Your task to perform on an android device: toggle show notifications on the lock screen Image 0: 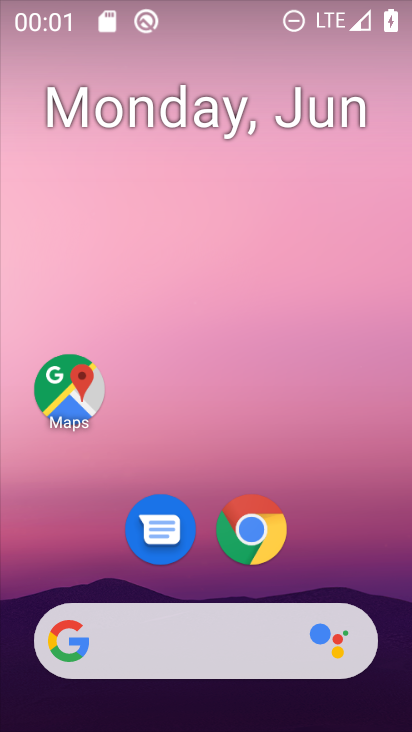
Step 0: drag from (392, 617) to (313, 165)
Your task to perform on an android device: toggle show notifications on the lock screen Image 1: 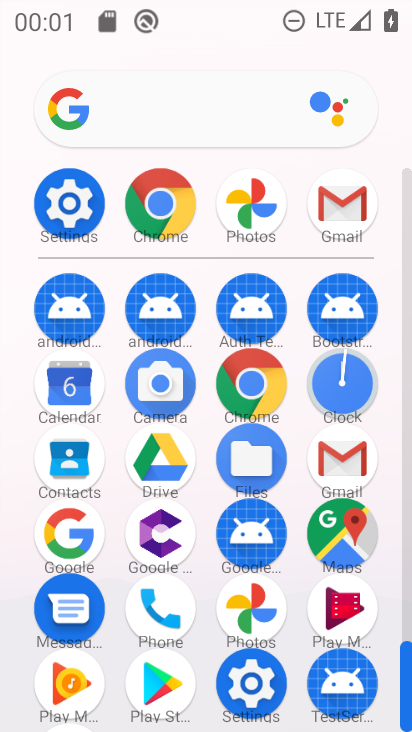
Step 1: click (253, 687)
Your task to perform on an android device: toggle show notifications on the lock screen Image 2: 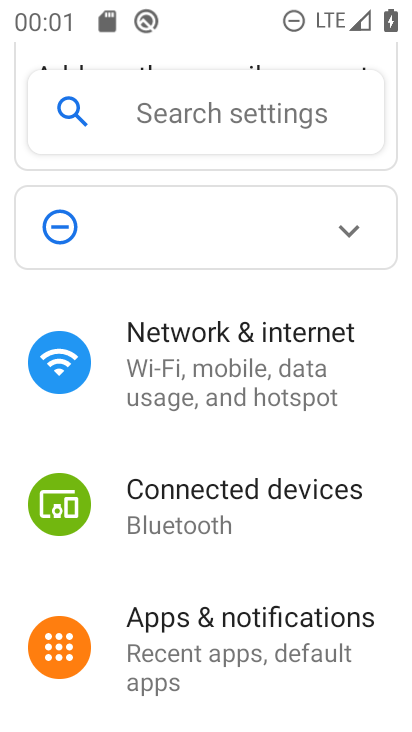
Step 2: click (208, 618)
Your task to perform on an android device: toggle show notifications on the lock screen Image 3: 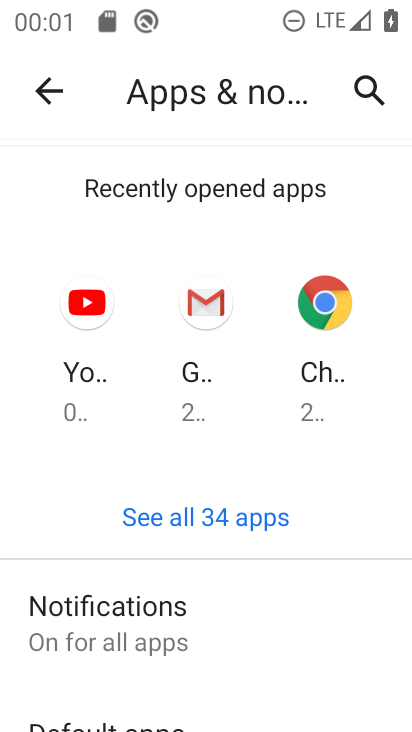
Step 3: drag from (326, 675) to (281, 269)
Your task to perform on an android device: toggle show notifications on the lock screen Image 4: 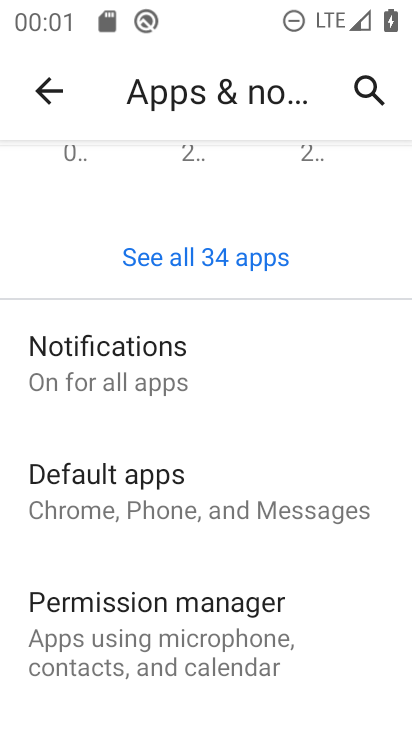
Step 4: click (111, 353)
Your task to perform on an android device: toggle show notifications on the lock screen Image 5: 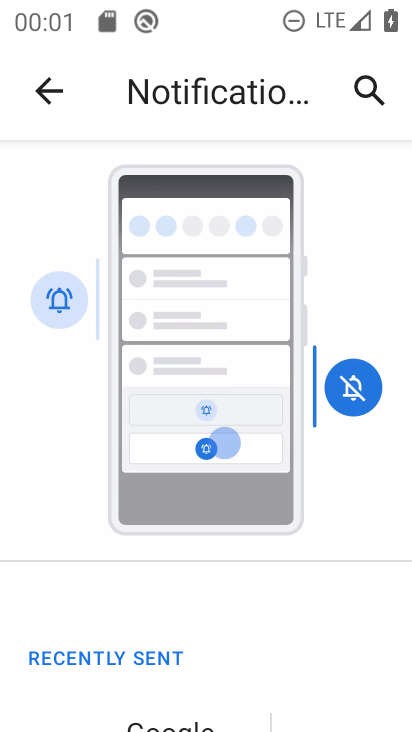
Step 5: drag from (267, 703) to (228, 136)
Your task to perform on an android device: toggle show notifications on the lock screen Image 6: 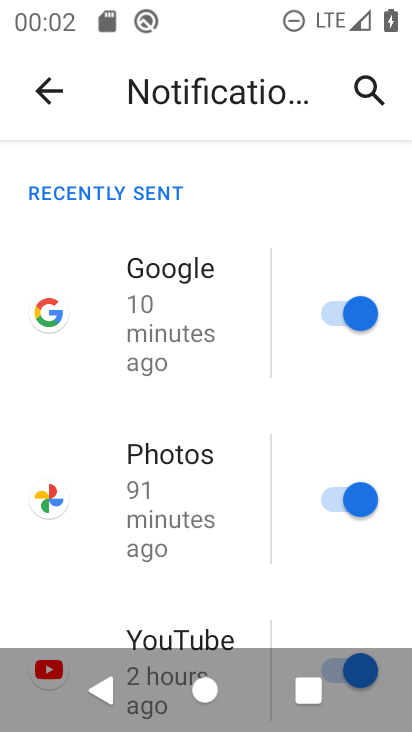
Step 6: drag from (267, 612) to (255, 95)
Your task to perform on an android device: toggle show notifications on the lock screen Image 7: 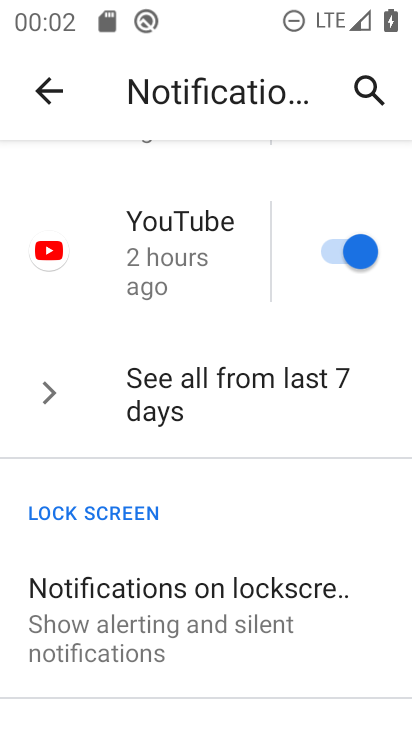
Step 7: drag from (273, 548) to (271, 231)
Your task to perform on an android device: toggle show notifications on the lock screen Image 8: 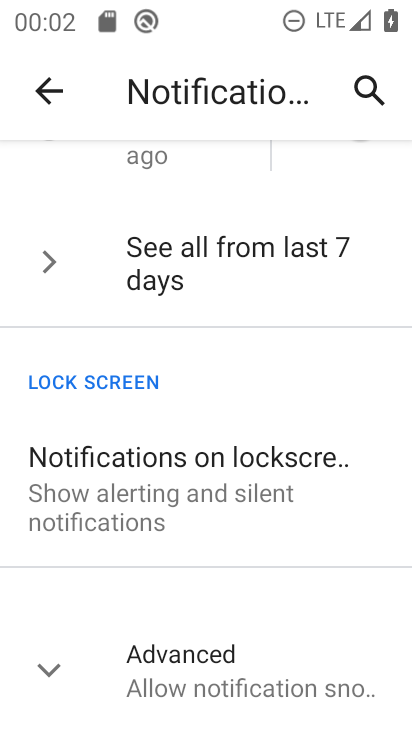
Step 8: click (111, 491)
Your task to perform on an android device: toggle show notifications on the lock screen Image 9: 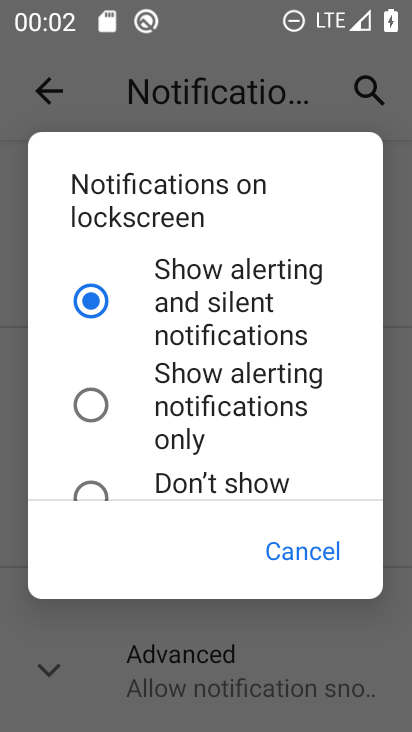
Step 9: click (81, 391)
Your task to perform on an android device: toggle show notifications on the lock screen Image 10: 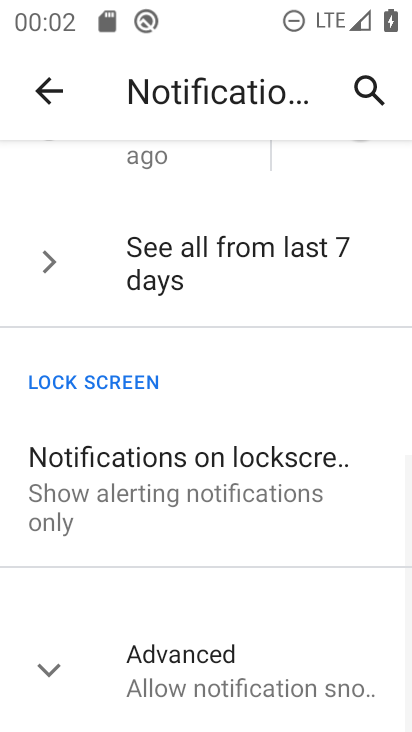
Step 10: task complete